Your task to perform on an android device: see creations saved in the google photos Image 0: 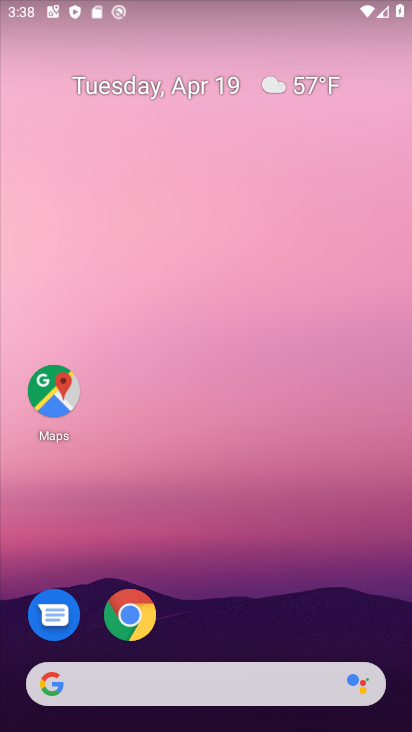
Step 0: drag from (216, 624) to (220, 195)
Your task to perform on an android device: see creations saved in the google photos Image 1: 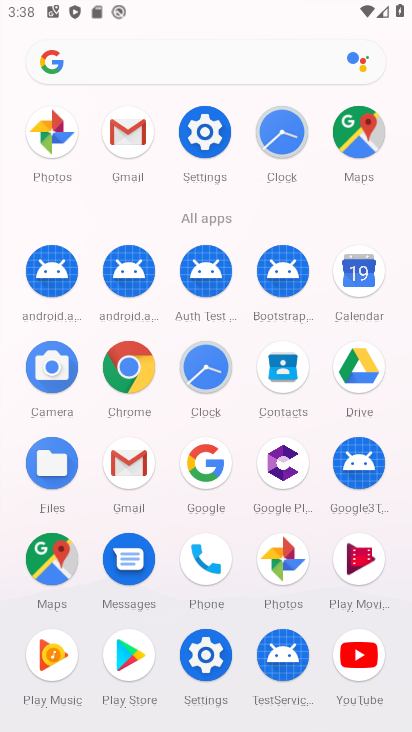
Step 1: click (279, 568)
Your task to perform on an android device: see creations saved in the google photos Image 2: 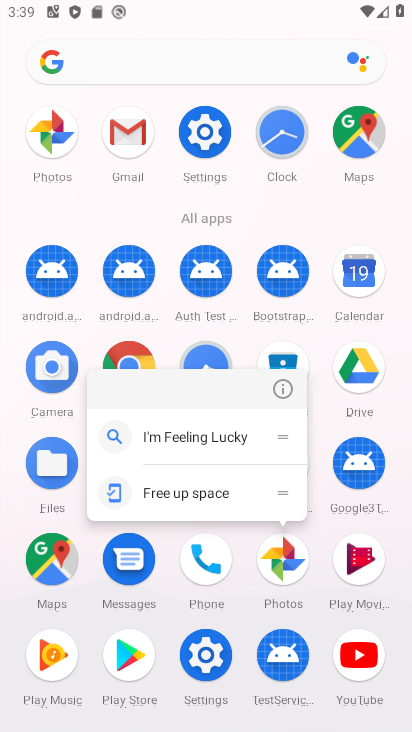
Step 2: click (288, 563)
Your task to perform on an android device: see creations saved in the google photos Image 3: 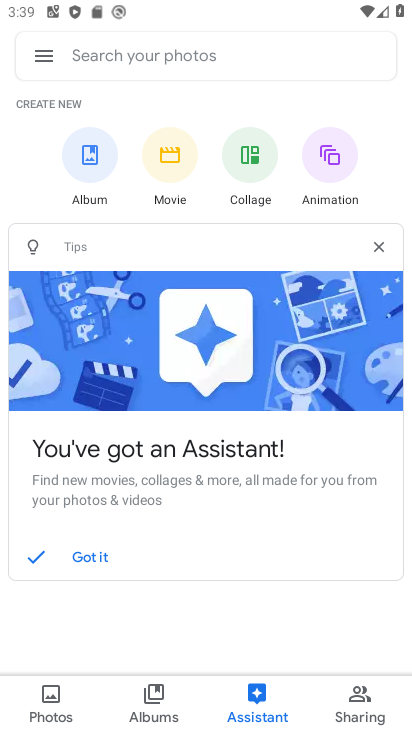
Step 3: click (165, 61)
Your task to perform on an android device: see creations saved in the google photos Image 4: 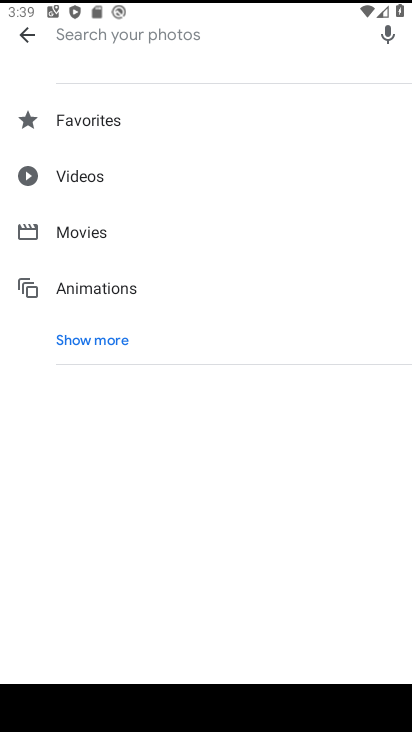
Step 4: click (111, 336)
Your task to perform on an android device: see creations saved in the google photos Image 5: 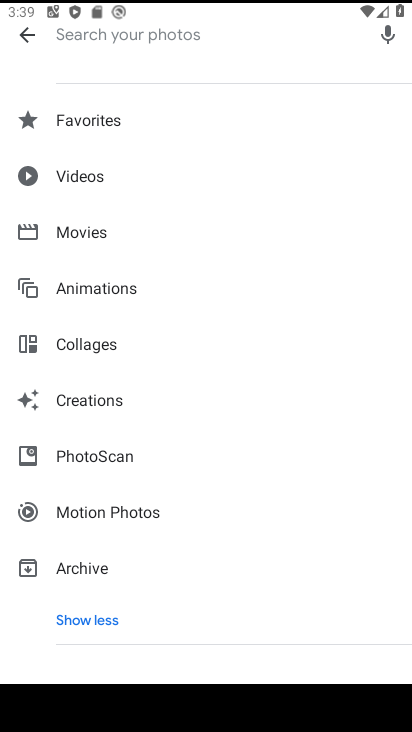
Step 5: click (117, 404)
Your task to perform on an android device: see creations saved in the google photos Image 6: 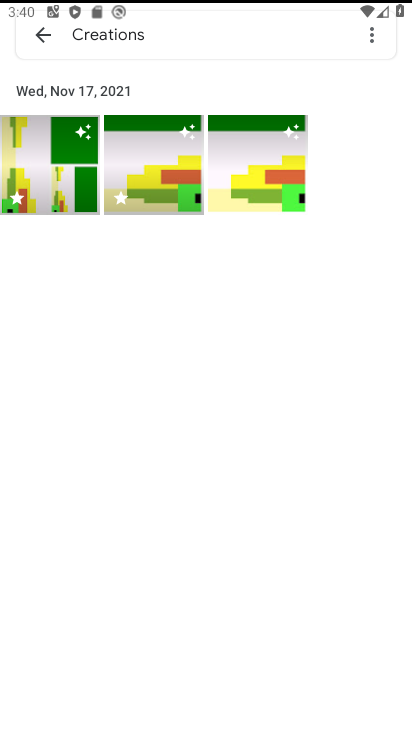
Step 6: task complete